Your task to perform on an android device: turn on sleep mode Image 0: 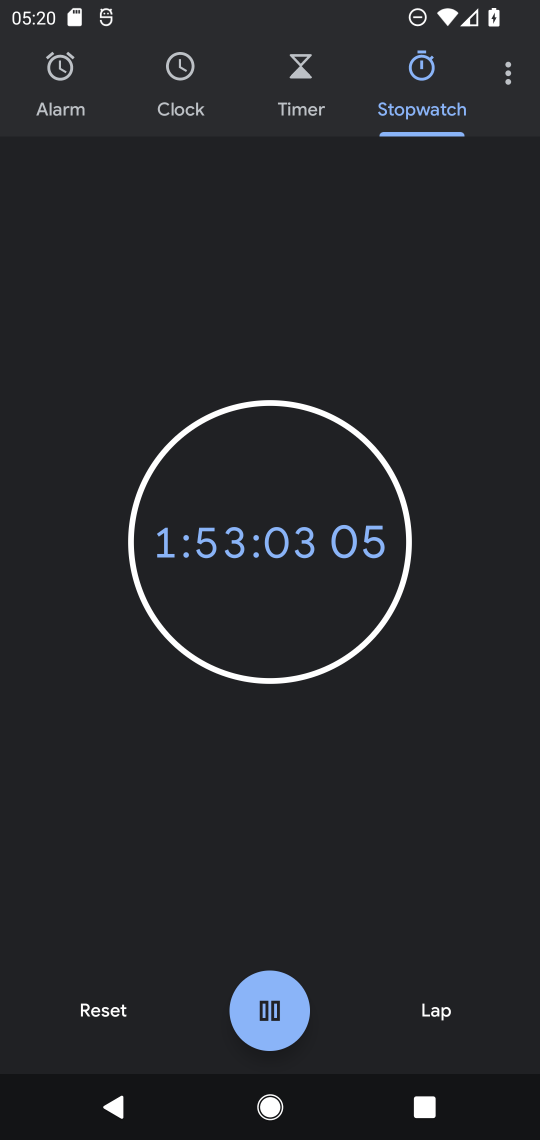
Step 0: press home button
Your task to perform on an android device: turn on sleep mode Image 1: 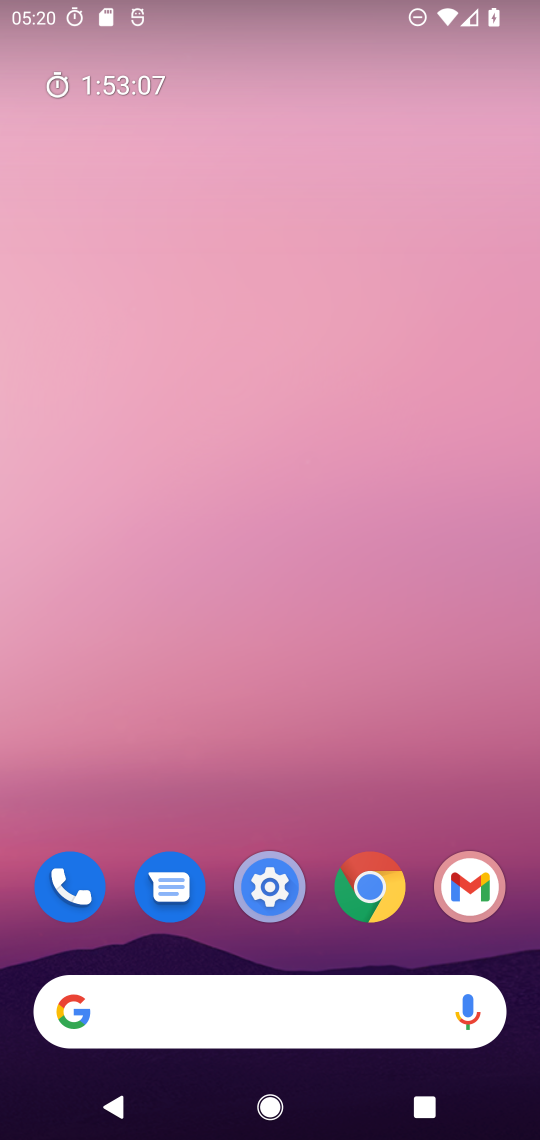
Step 1: drag from (403, 778) to (471, 279)
Your task to perform on an android device: turn on sleep mode Image 2: 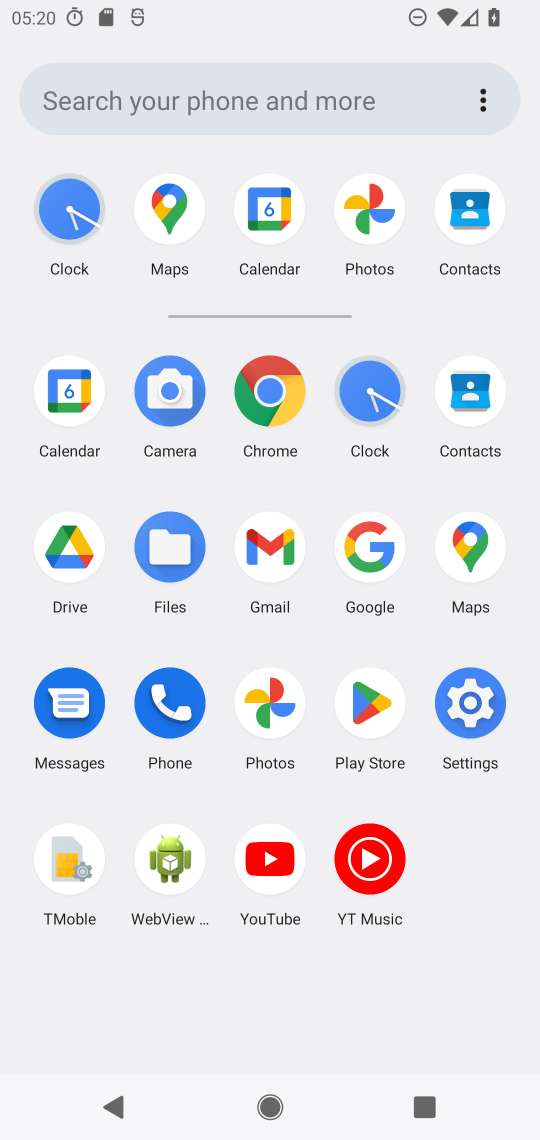
Step 2: click (454, 713)
Your task to perform on an android device: turn on sleep mode Image 3: 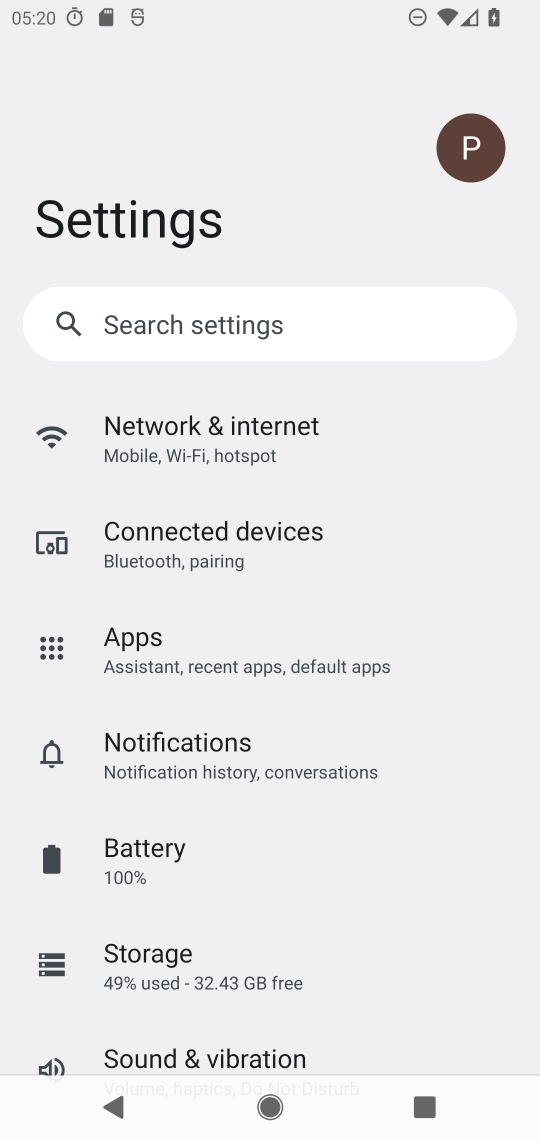
Step 3: drag from (438, 839) to (429, 718)
Your task to perform on an android device: turn on sleep mode Image 4: 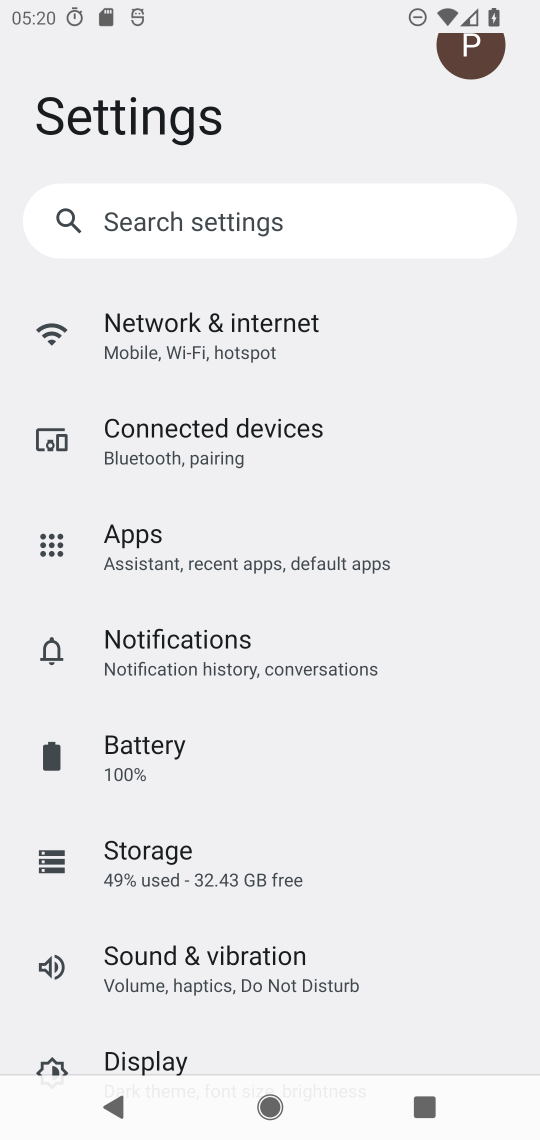
Step 4: drag from (416, 840) to (444, 643)
Your task to perform on an android device: turn on sleep mode Image 5: 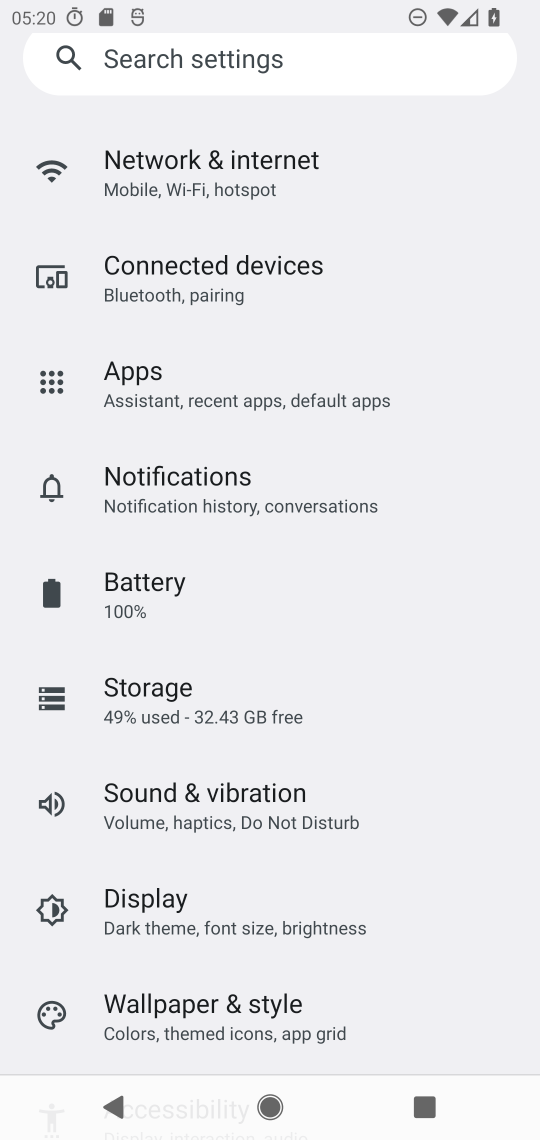
Step 5: drag from (458, 836) to (482, 631)
Your task to perform on an android device: turn on sleep mode Image 6: 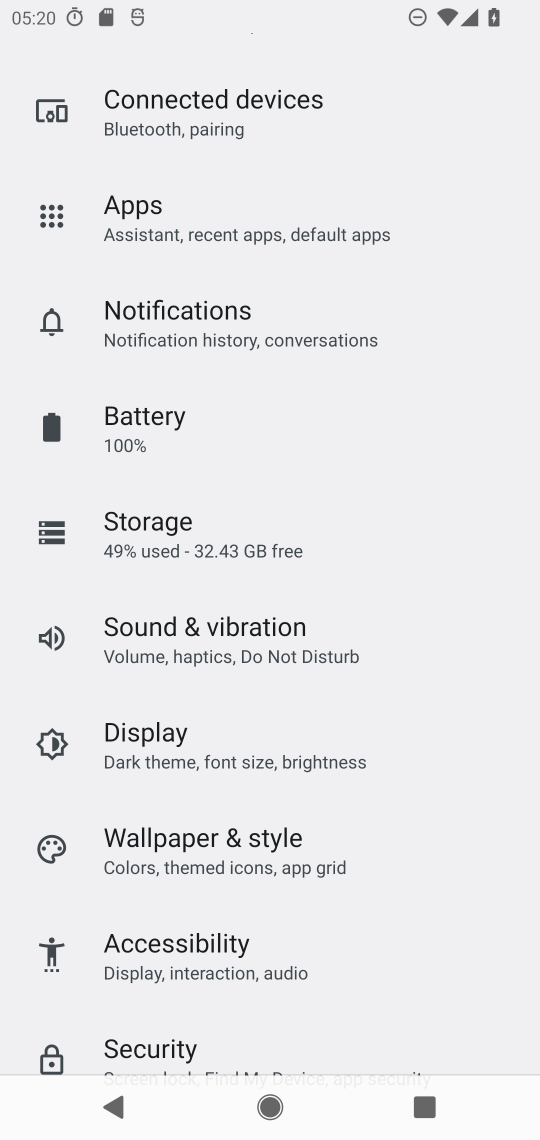
Step 6: click (305, 746)
Your task to perform on an android device: turn on sleep mode Image 7: 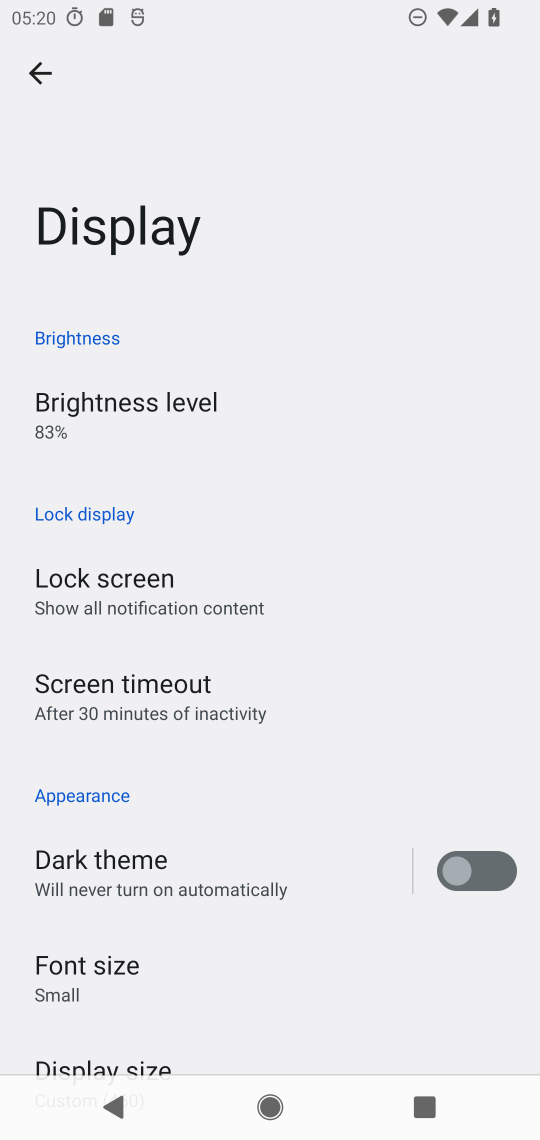
Step 7: task complete